Your task to perform on an android device: manage bookmarks in the chrome app Image 0: 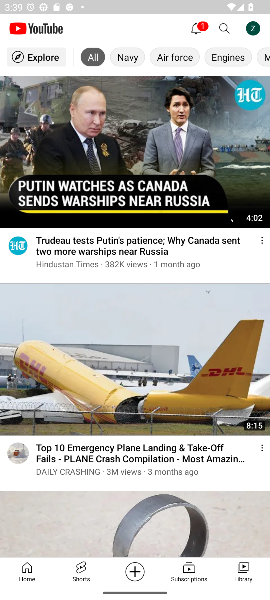
Step 0: press home button
Your task to perform on an android device: manage bookmarks in the chrome app Image 1: 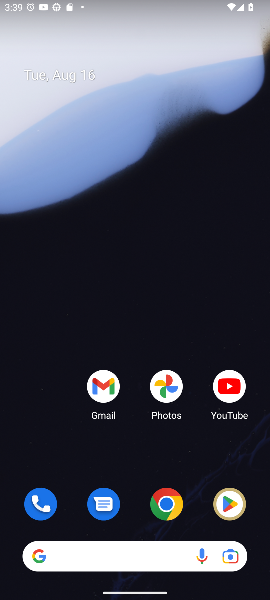
Step 1: click (168, 504)
Your task to perform on an android device: manage bookmarks in the chrome app Image 2: 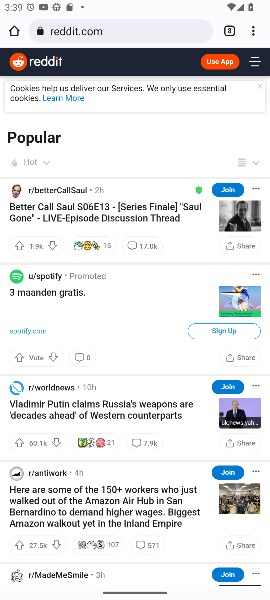
Step 2: click (250, 25)
Your task to perform on an android device: manage bookmarks in the chrome app Image 3: 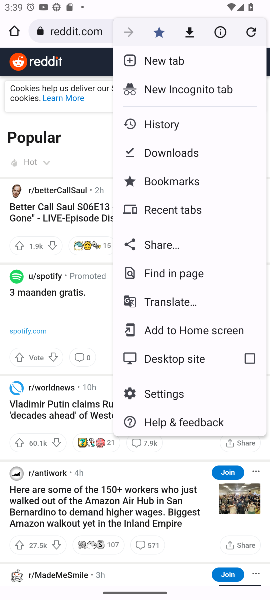
Step 3: click (174, 183)
Your task to perform on an android device: manage bookmarks in the chrome app Image 4: 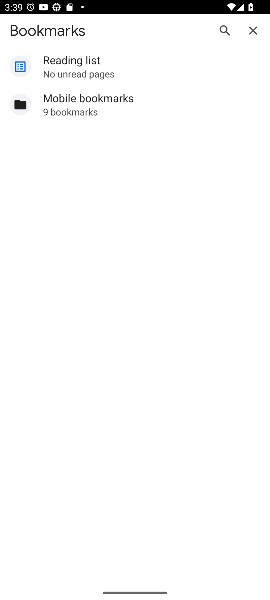
Step 4: click (120, 95)
Your task to perform on an android device: manage bookmarks in the chrome app Image 5: 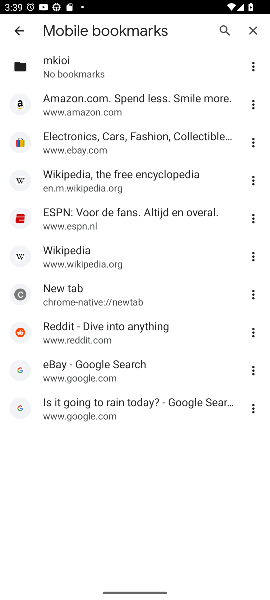
Step 5: click (250, 63)
Your task to perform on an android device: manage bookmarks in the chrome app Image 6: 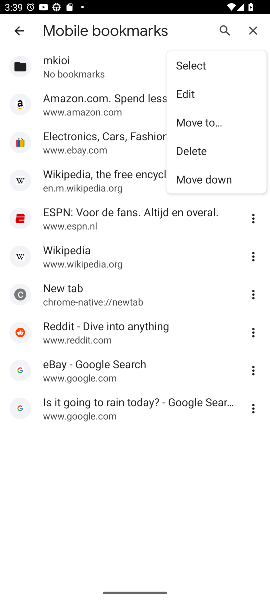
Step 6: click (185, 90)
Your task to perform on an android device: manage bookmarks in the chrome app Image 7: 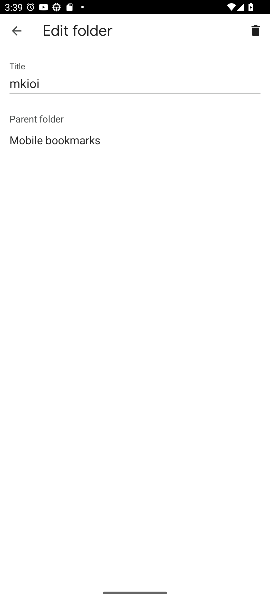
Step 7: task complete